Your task to perform on an android device: Is it going to rain tomorrow? Image 0: 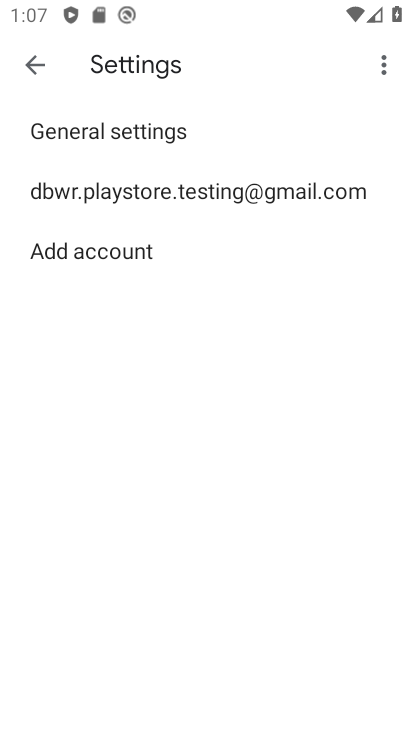
Step 0: press home button
Your task to perform on an android device: Is it going to rain tomorrow? Image 1: 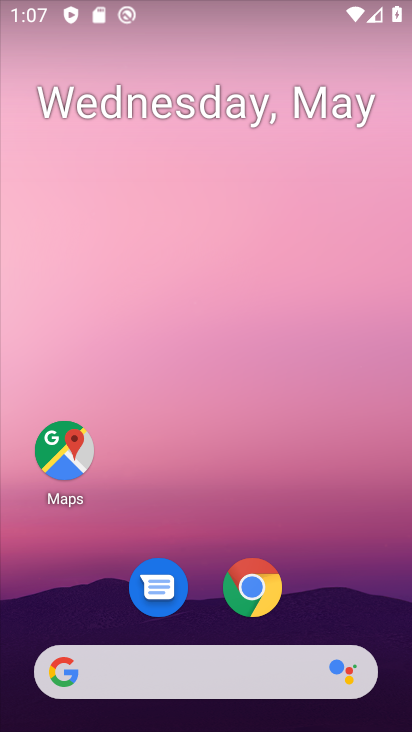
Step 1: drag from (34, 269) to (262, 307)
Your task to perform on an android device: Is it going to rain tomorrow? Image 2: 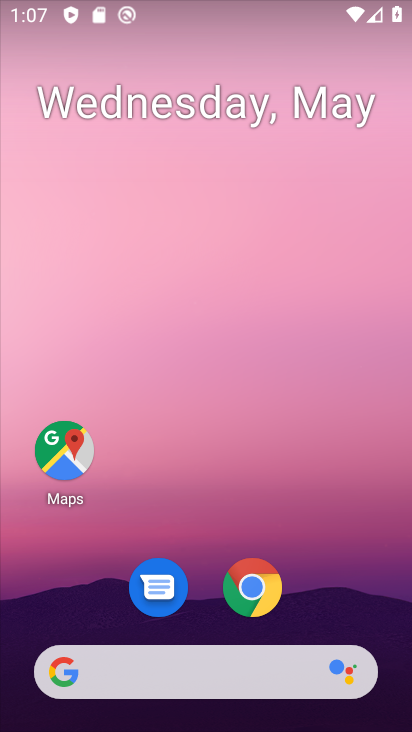
Step 2: drag from (16, 258) to (237, 236)
Your task to perform on an android device: Is it going to rain tomorrow? Image 3: 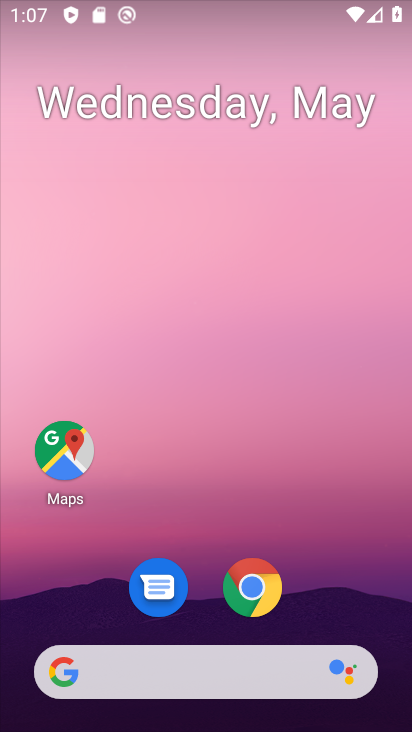
Step 3: drag from (33, 273) to (261, 240)
Your task to perform on an android device: Is it going to rain tomorrow? Image 4: 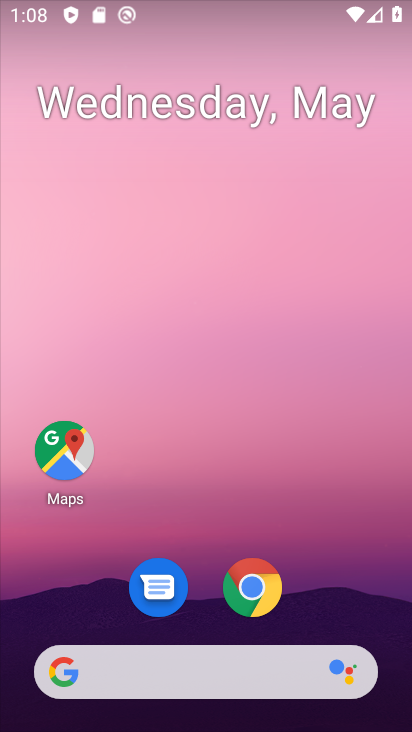
Step 4: drag from (27, 257) to (285, 205)
Your task to perform on an android device: Is it going to rain tomorrow? Image 5: 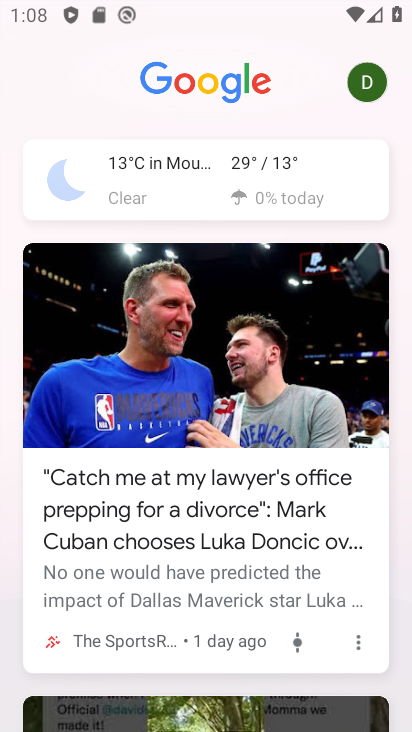
Step 5: click (130, 184)
Your task to perform on an android device: Is it going to rain tomorrow? Image 6: 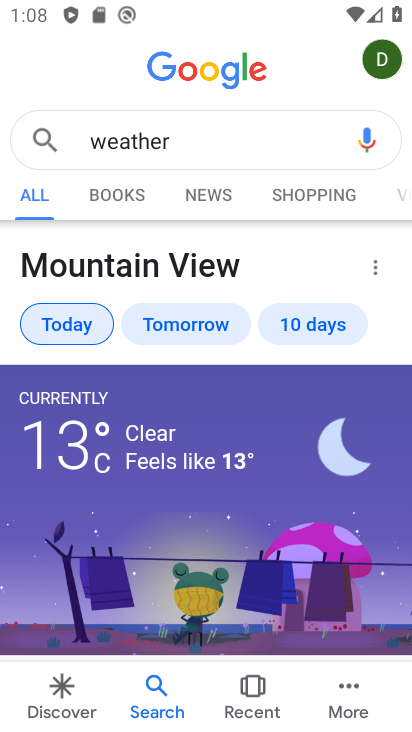
Step 6: click (174, 328)
Your task to perform on an android device: Is it going to rain tomorrow? Image 7: 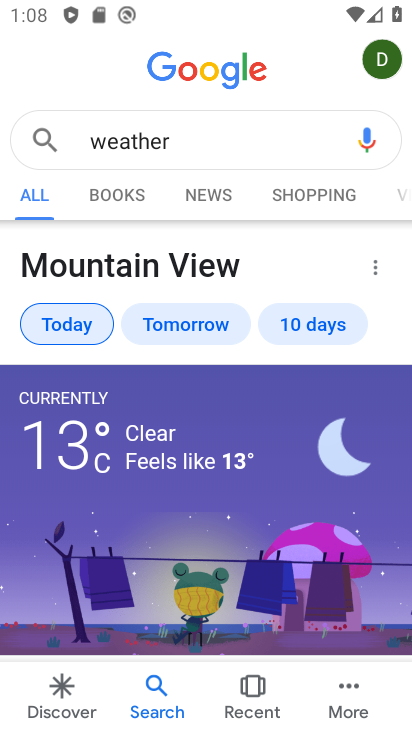
Step 7: click (193, 328)
Your task to perform on an android device: Is it going to rain tomorrow? Image 8: 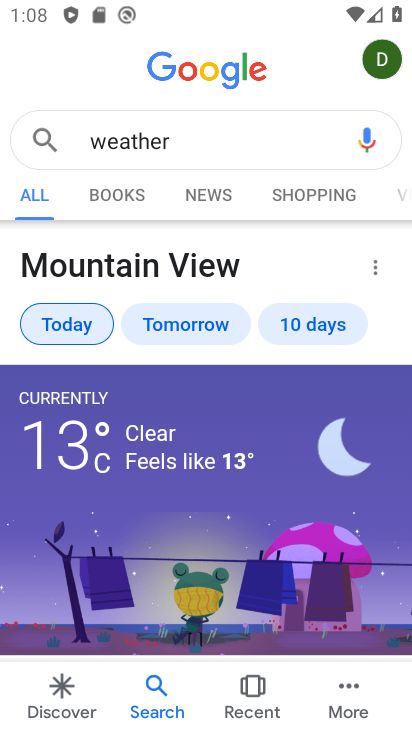
Step 8: click (194, 301)
Your task to perform on an android device: Is it going to rain tomorrow? Image 9: 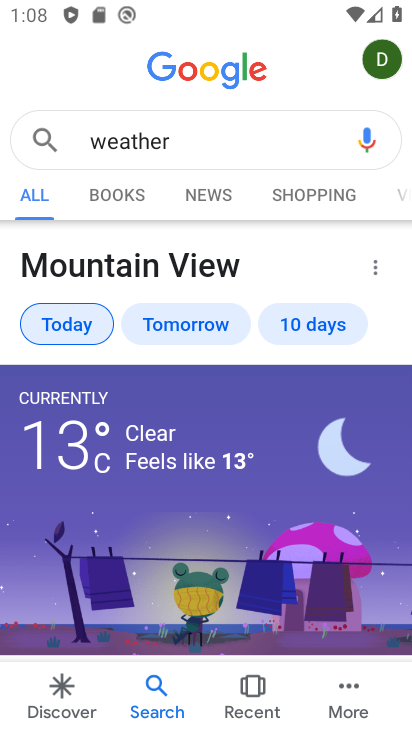
Step 9: task complete